Your task to perform on an android device: Go to Yahoo.com Image 0: 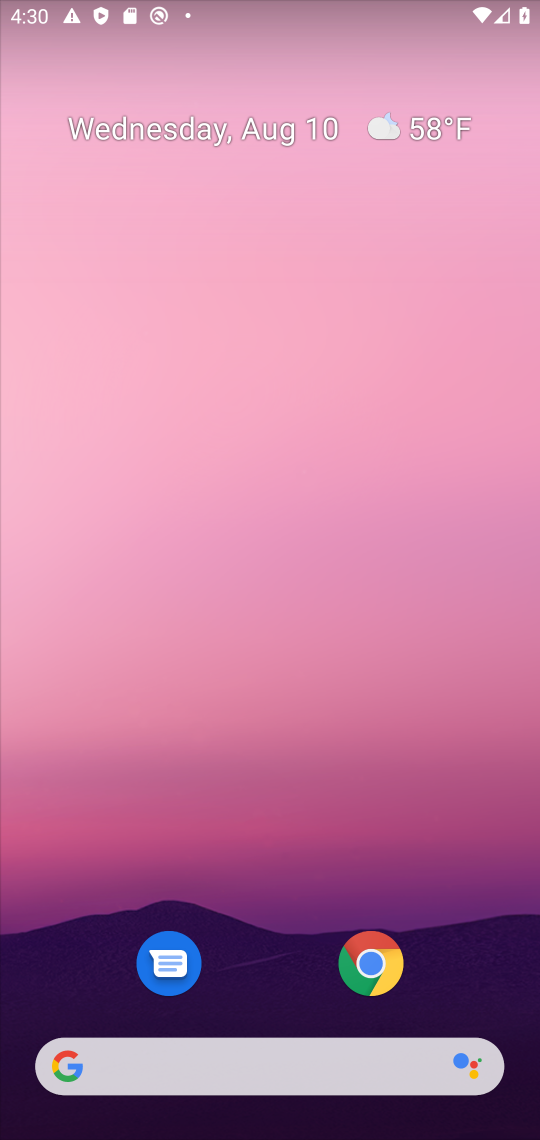
Step 0: drag from (270, 949) to (295, 85)
Your task to perform on an android device: Go to Yahoo.com Image 1: 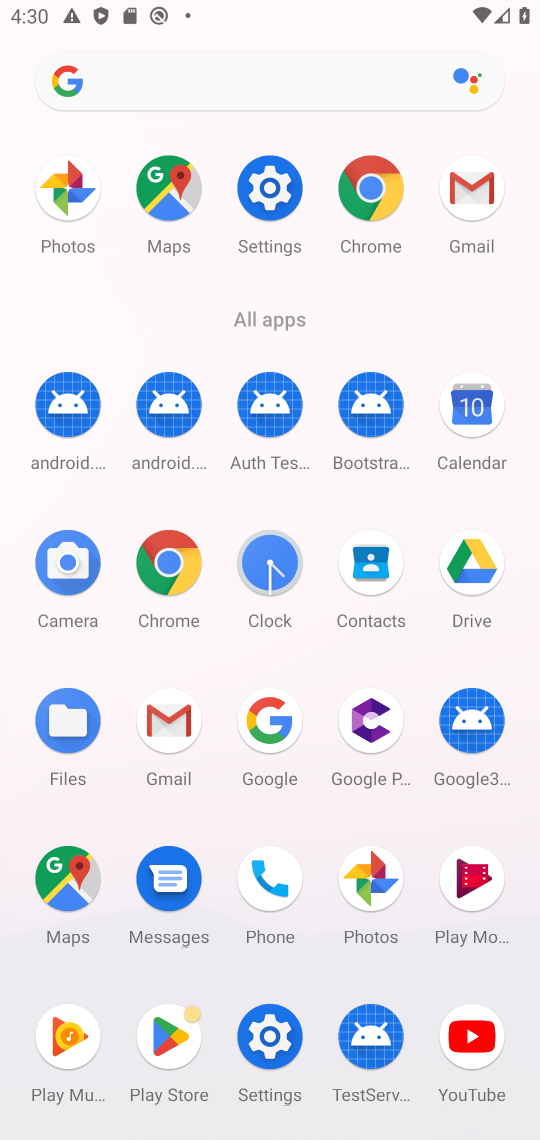
Step 1: click (353, 209)
Your task to perform on an android device: Go to Yahoo.com Image 2: 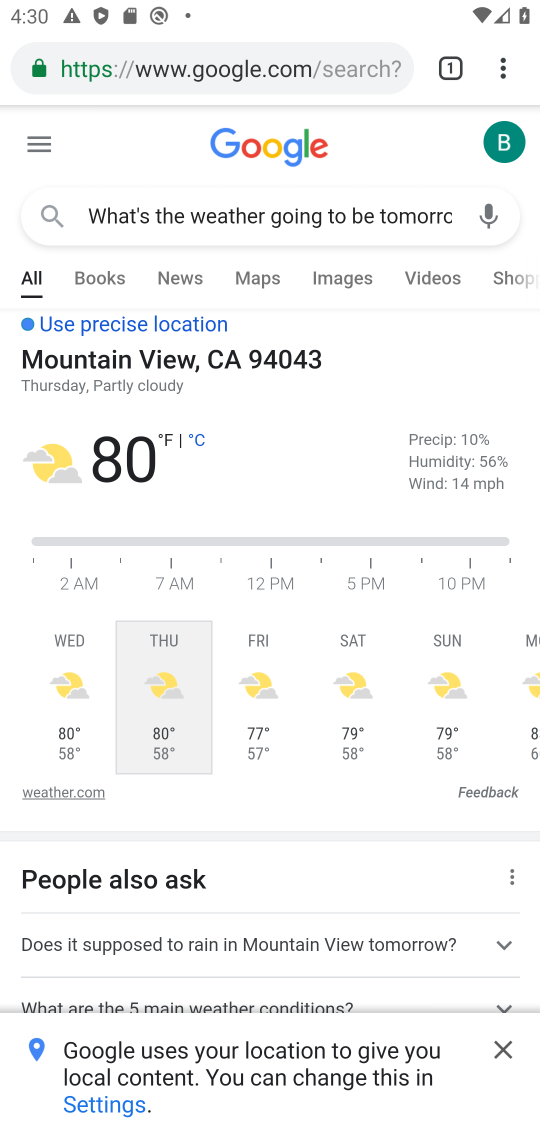
Step 2: click (190, 66)
Your task to perform on an android device: Go to Yahoo.com Image 3: 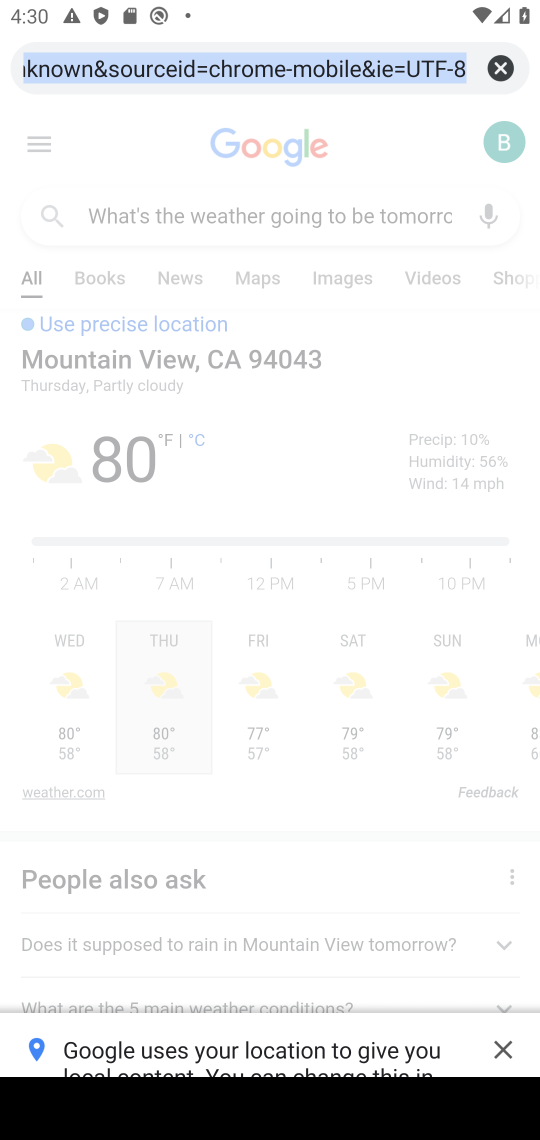
Step 3: click (499, 66)
Your task to perform on an android device: Go to Yahoo.com Image 4: 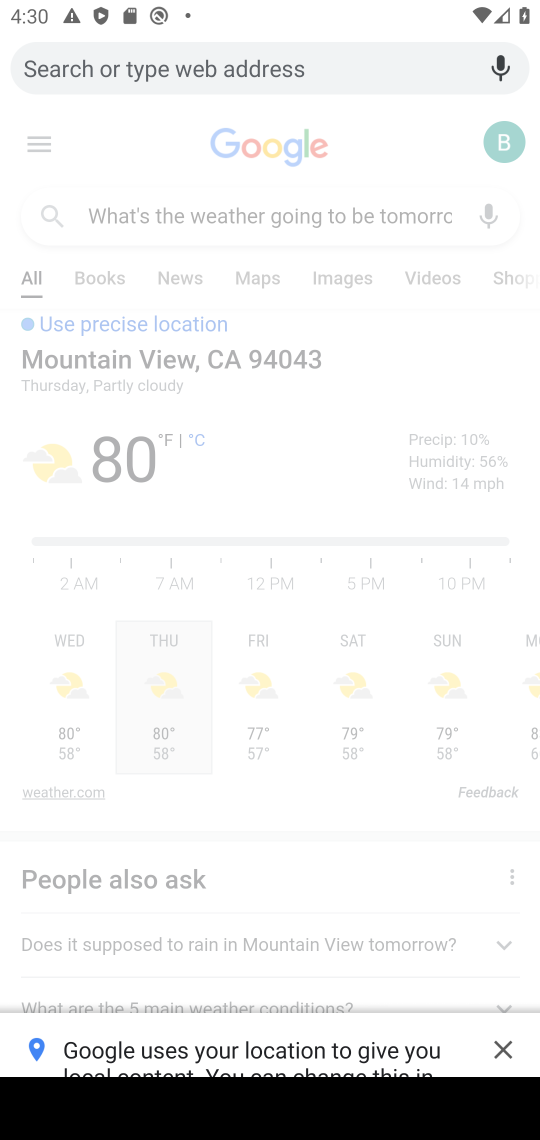
Step 4: type "Yahoo.com"
Your task to perform on an android device: Go to Yahoo.com Image 5: 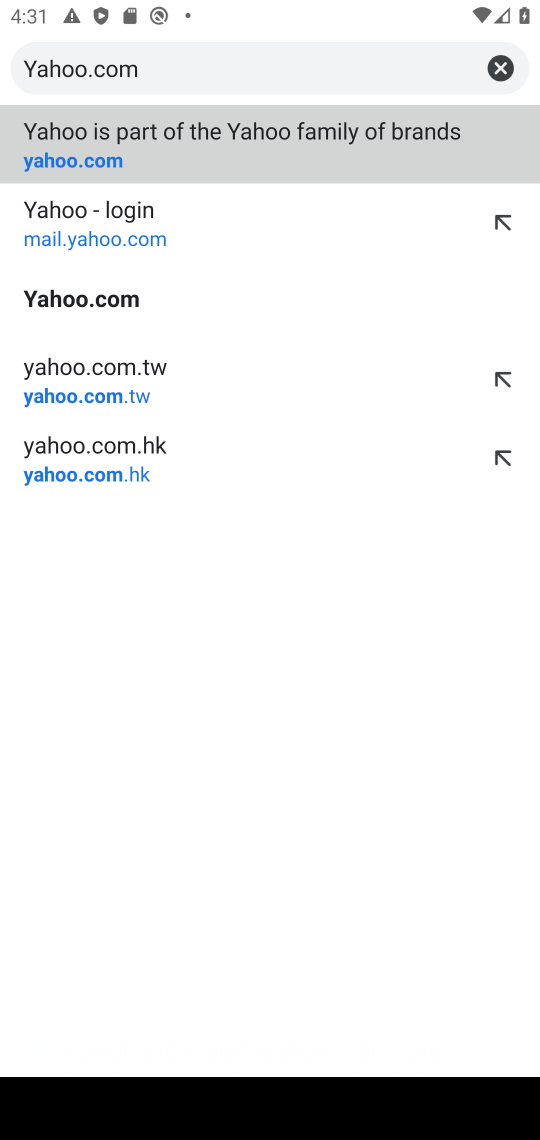
Step 5: click (53, 163)
Your task to perform on an android device: Go to Yahoo.com Image 6: 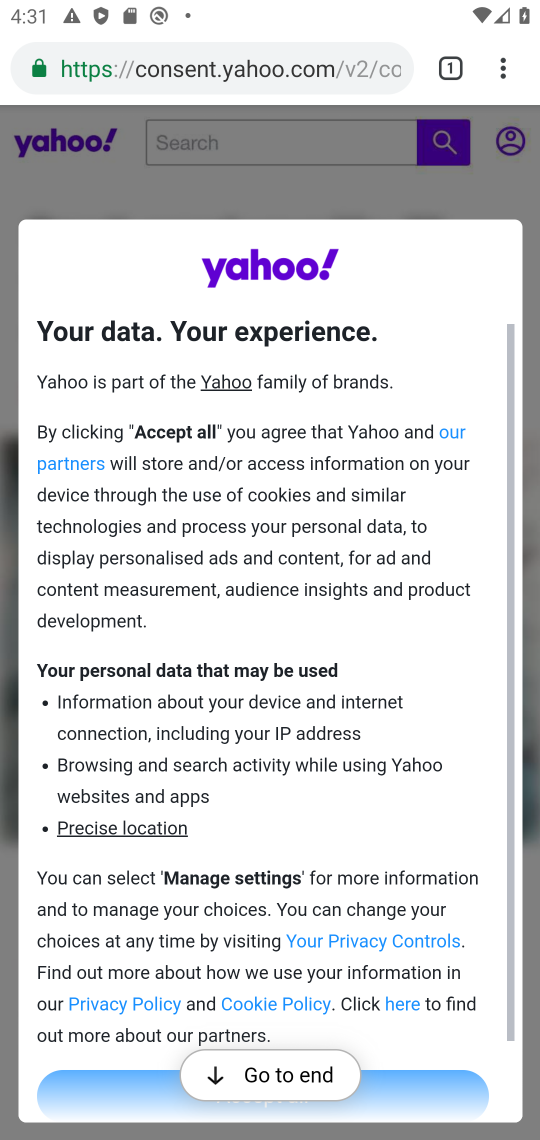
Step 6: drag from (414, 821) to (458, 201)
Your task to perform on an android device: Go to Yahoo.com Image 7: 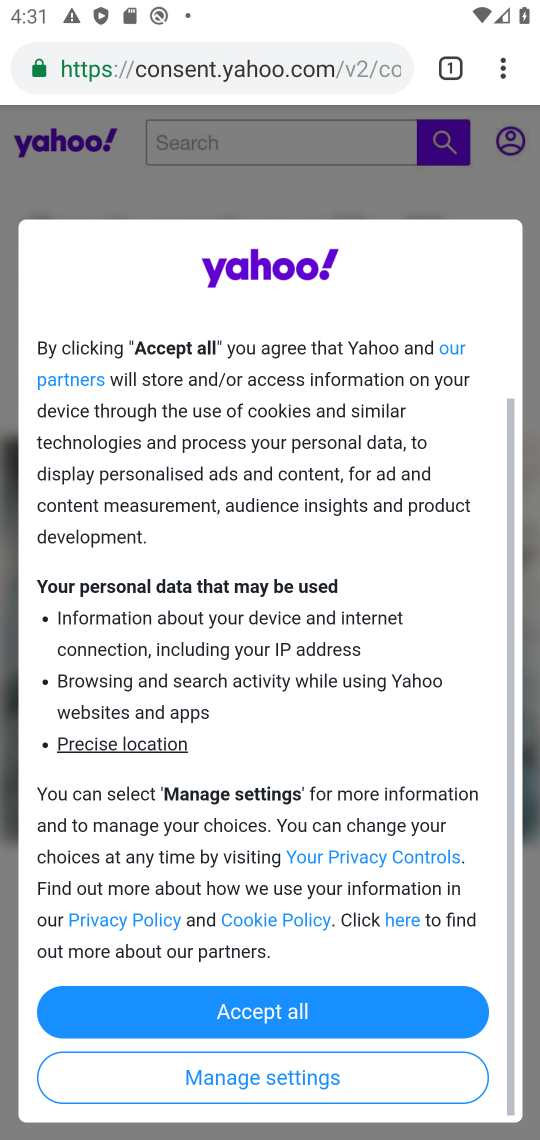
Step 7: click (287, 1019)
Your task to perform on an android device: Go to Yahoo.com Image 8: 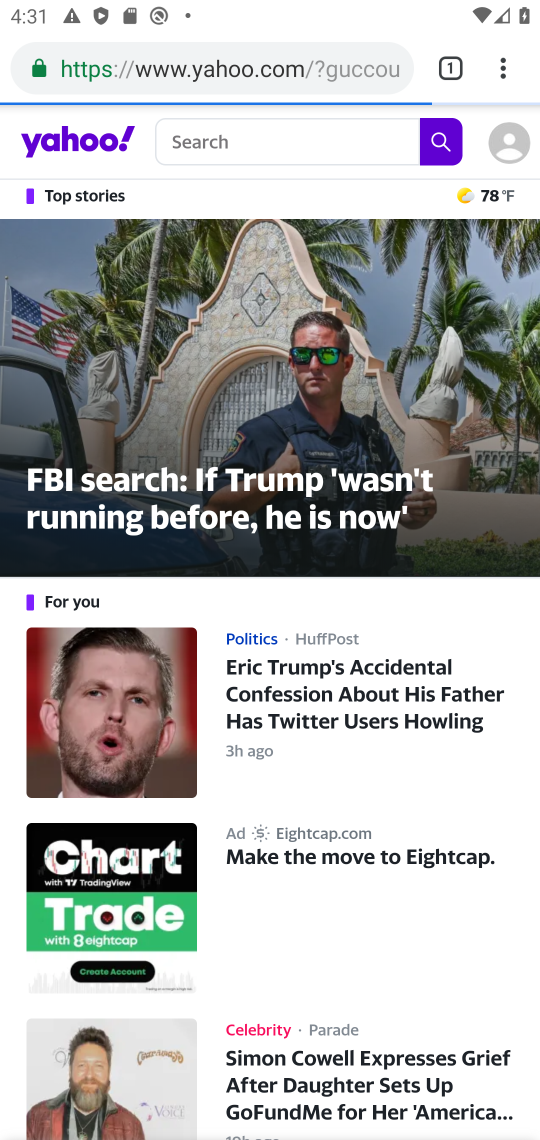
Step 8: task complete